Your task to perform on an android device: turn on javascript in the chrome app Image 0: 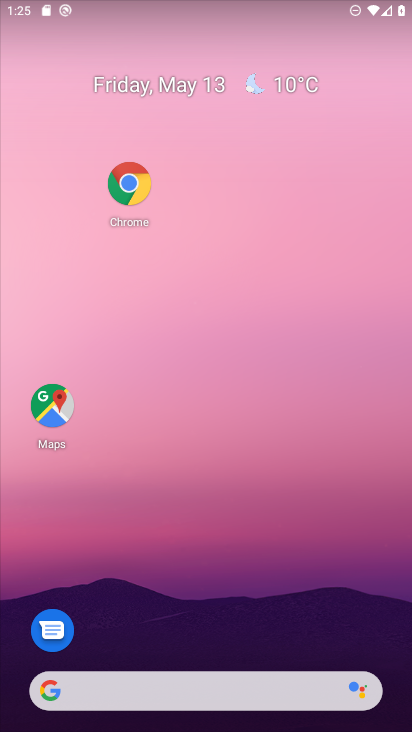
Step 0: click (130, 195)
Your task to perform on an android device: turn on javascript in the chrome app Image 1: 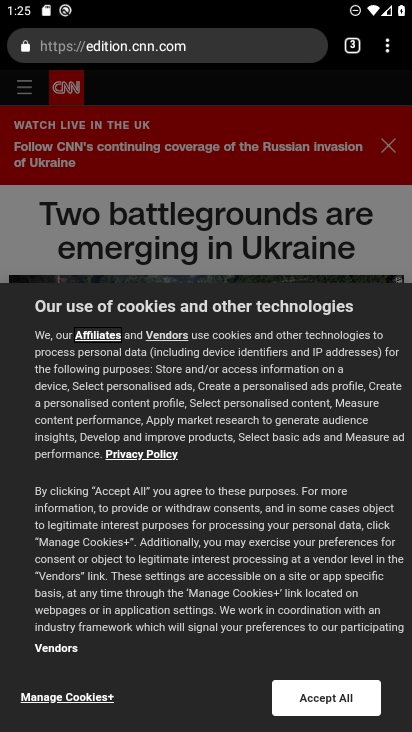
Step 1: click (390, 56)
Your task to perform on an android device: turn on javascript in the chrome app Image 2: 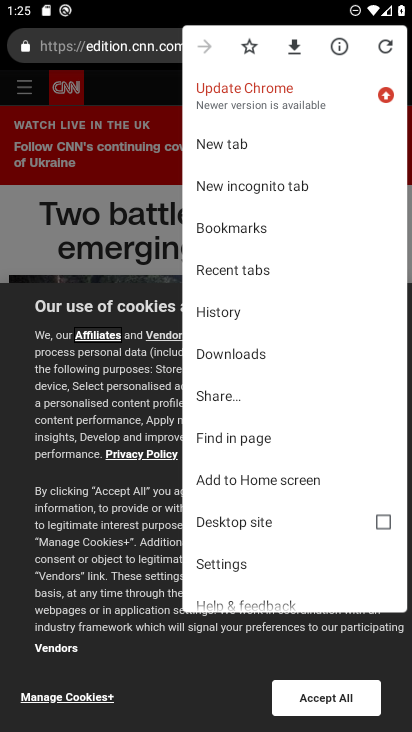
Step 2: click (243, 561)
Your task to perform on an android device: turn on javascript in the chrome app Image 3: 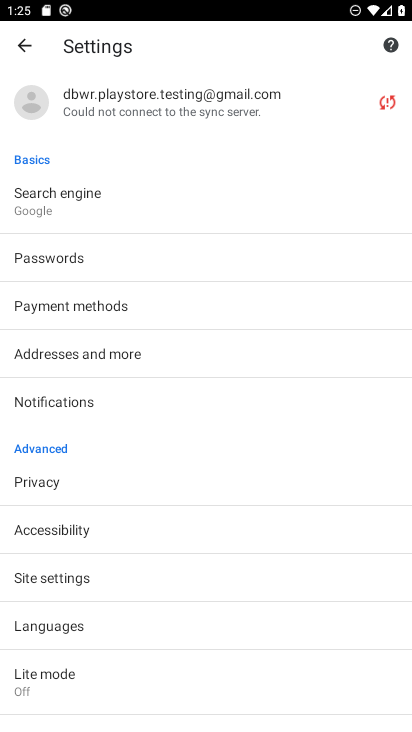
Step 3: click (71, 573)
Your task to perform on an android device: turn on javascript in the chrome app Image 4: 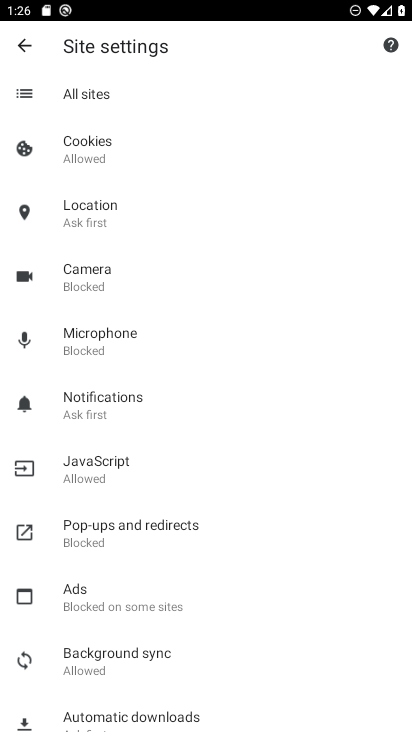
Step 4: click (107, 482)
Your task to perform on an android device: turn on javascript in the chrome app Image 5: 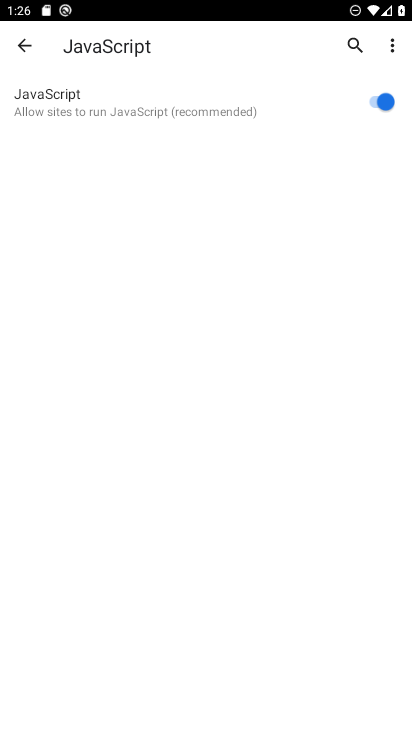
Step 5: task complete